Your task to perform on an android device: Open Chrome and go to settings Image 0: 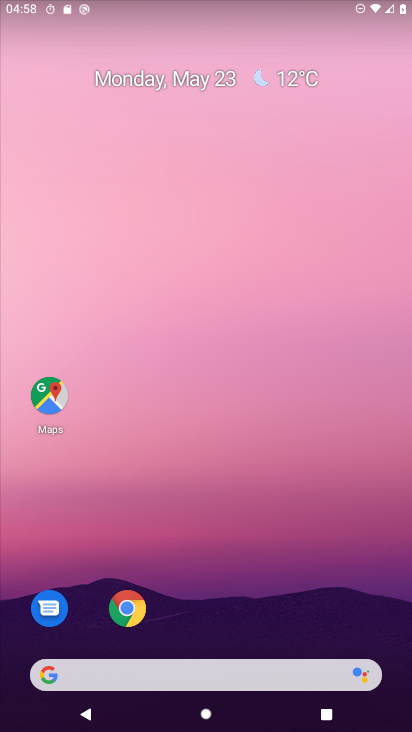
Step 0: click (127, 608)
Your task to perform on an android device: Open Chrome and go to settings Image 1: 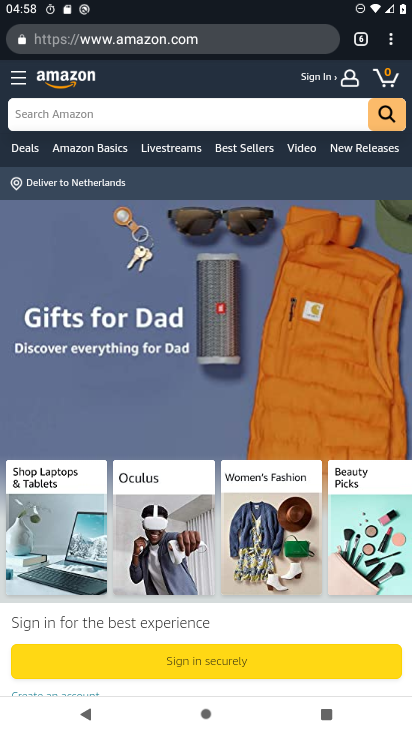
Step 1: click (396, 34)
Your task to perform on an android device: Open Chrome and go to settings Image 2: 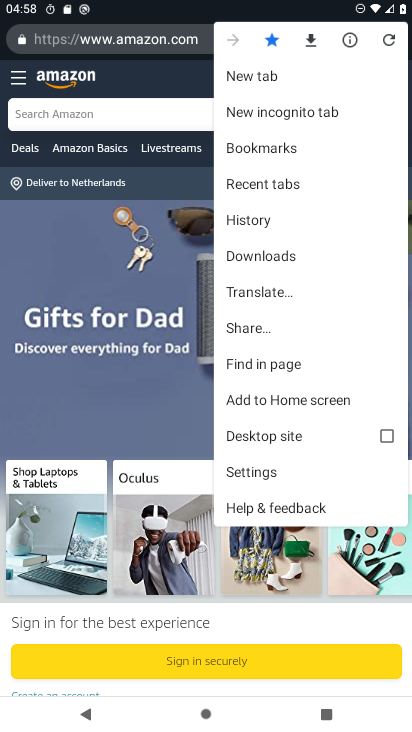
Step 2: click (288, 464)
Your task to perform on an android device: Open Chrome and go to settings Image 3: 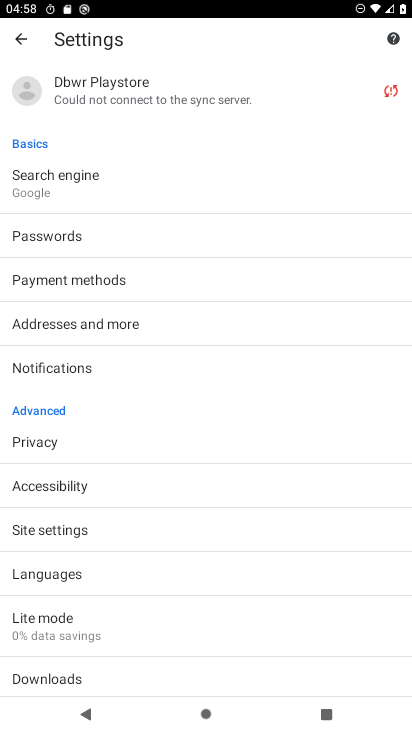
Step 3: task complete